Your task to perform on an android device: install app "Walmart Shopping & Grocery" Image 0: 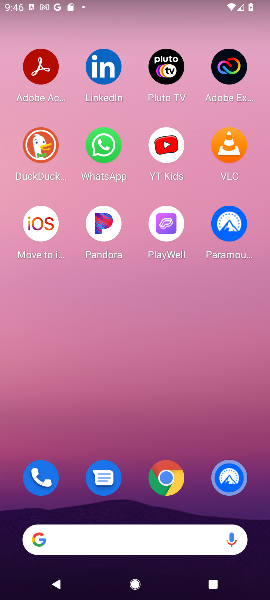
Step 0: drag from (141, 508) to (128, 13)
Your task to perform on an android device: install app "Walmart Shopping & Grocery" Image 1: 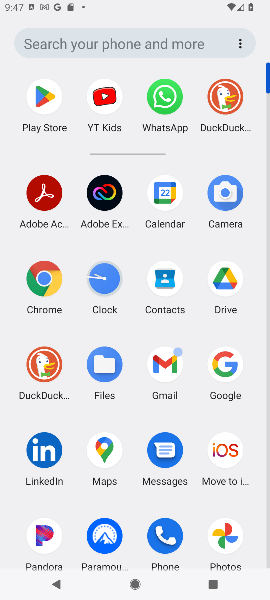
Step 1: click (42, 95)
Your task to perform on an android device: install app "Walmart Shopping & Grocery" Image 2: 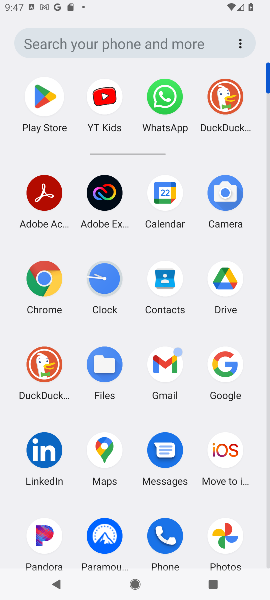
Step 2: click (42, 95)
Your task to perform on an android device: install app "Walmart Shopping & Grocery" Image 3: 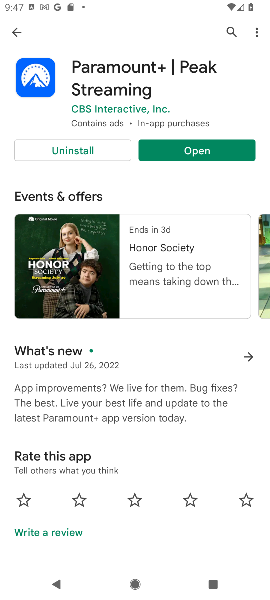
Step 3: click (53, 122)
Your task to perform on an android device: install app "Walmart Shopping & Grocery" Image 4: 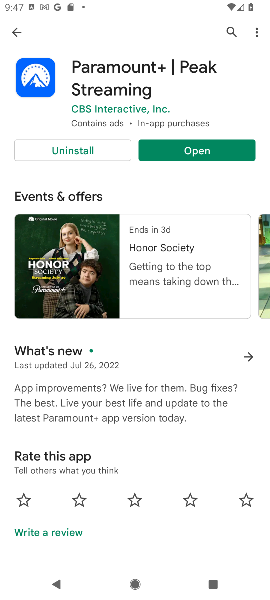
Step 4: click (231, 25)
Your task to perform on an android device: install app "Walmart Shopping & Grocery" Image 5: 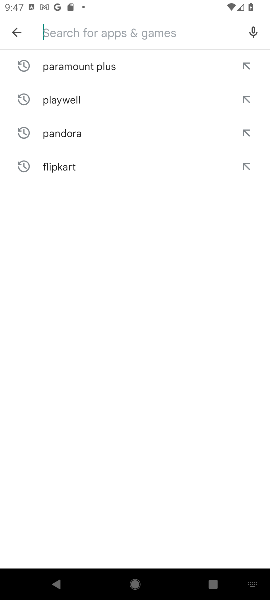
Step 5: type "walmart"
Your task to perform on an android device: install app "Walmart Shopping & Grocery" Image 6: 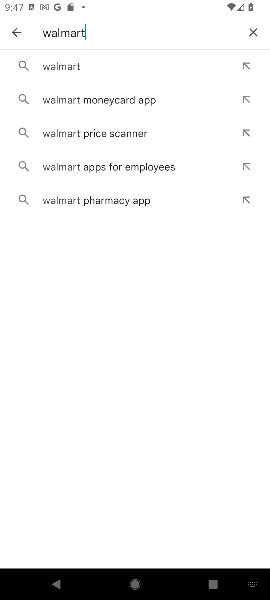
Step 6: click (136, 61)
Your task to perform on an android device: install app "Walmart Shopping & Grocery" Image 7: 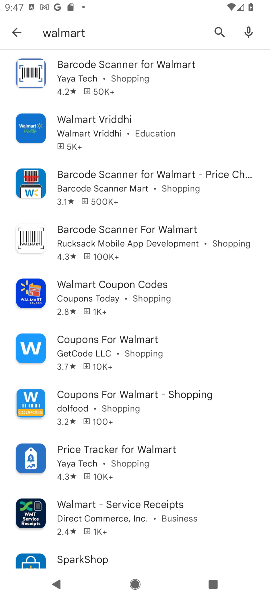
Step 7: click (163, 118)
Your task to perform on an android device: install app "Walmart Shopping & Grocery" Image 8: 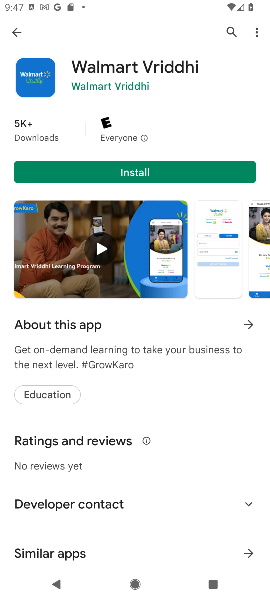
Step 8: click (161, 173)
Your task to perform on an android device: install app "Walmart Shopping & Grocery" Image 9: 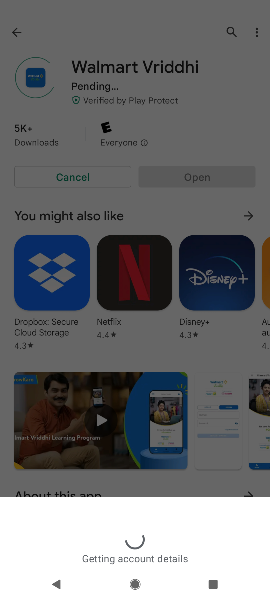
Step 9: task complete